Your task to perform on an android device: Go to Google maps Image 0: 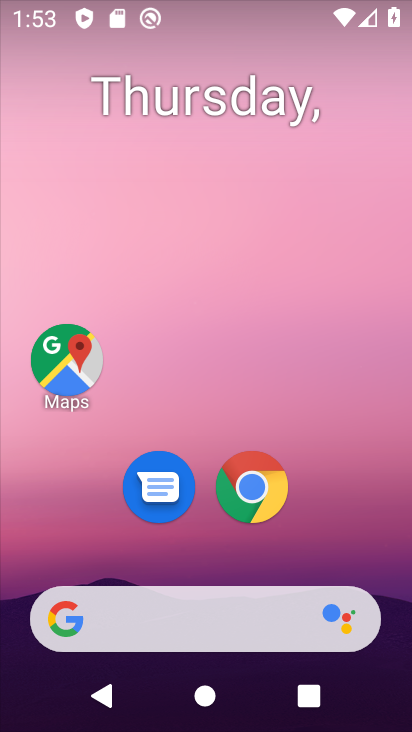
Step 0: drag from (309, 519) to (305, 81)
Your task to perform on an android device: Go to Google maps Image 1: 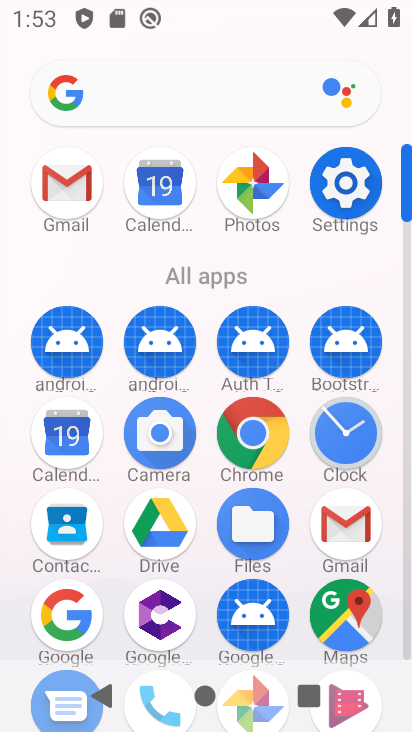
Step 1: click (347, 619)
Your task to perform on an android device: Go to Google maps Image 2: 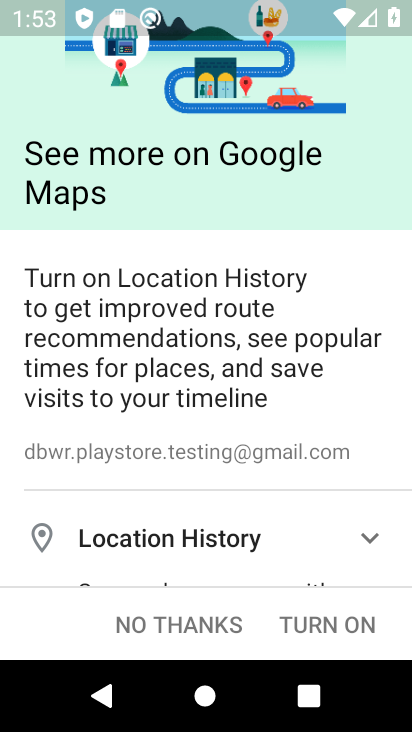
Step 2: click (181, 608)
Your task to perform on an android device: Go to Google maps Image 3: 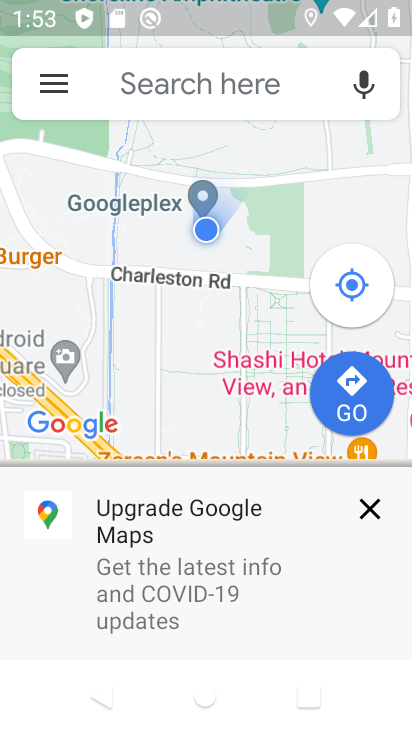
Step 3: click (357, 508)
Your task to perform on an android device: Go to Google maps Image 4: 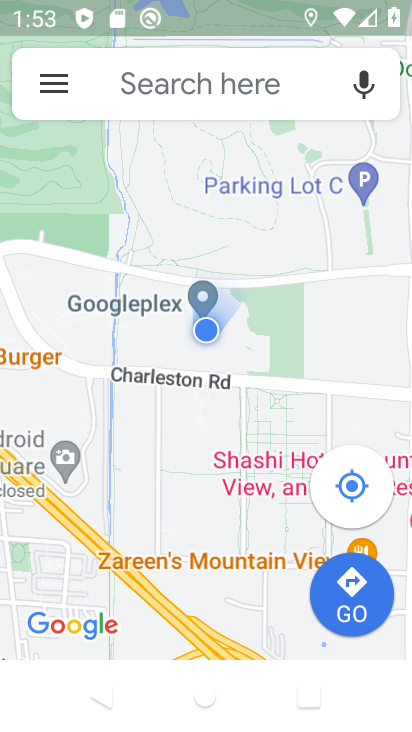
Step 4: task complete